Your task to perform on an android device: change timer sound Image 0: 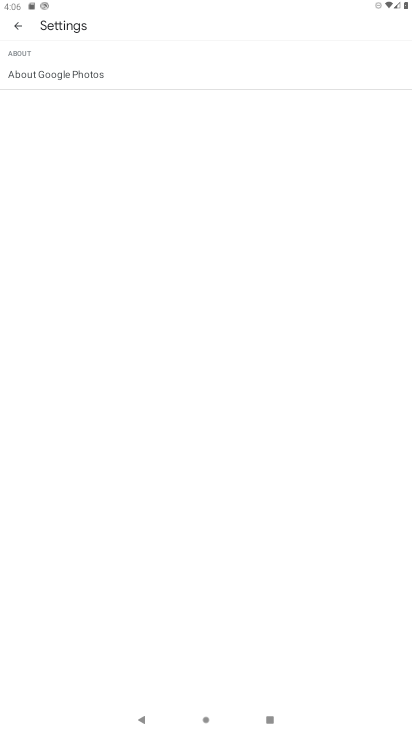
Step 0: press home button
Your task to perform on an android device: change timer sound Image 1: 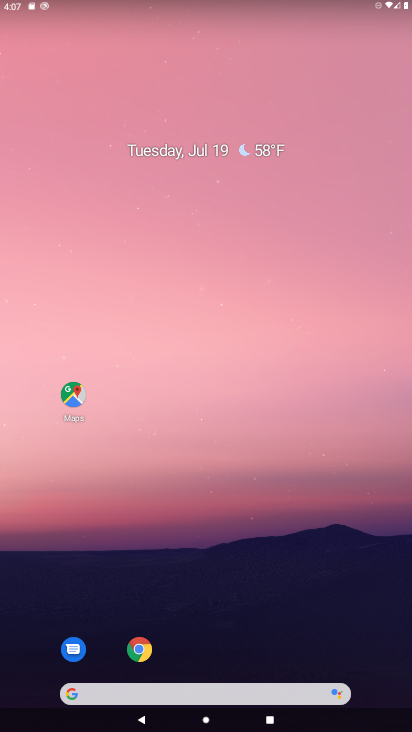
Step 1: drag from (229, 710) to (198, 131)
Your task to perform on an android device: change timer sound Image 2: 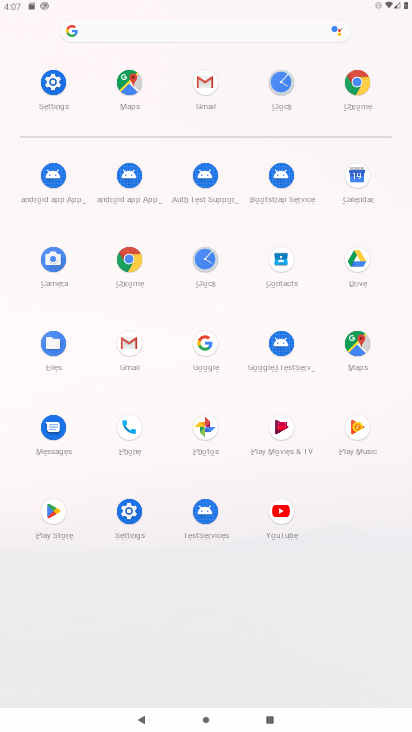
Step 2: click (207, 262)
Your task to perform on an android device: change timer sound Image 3: 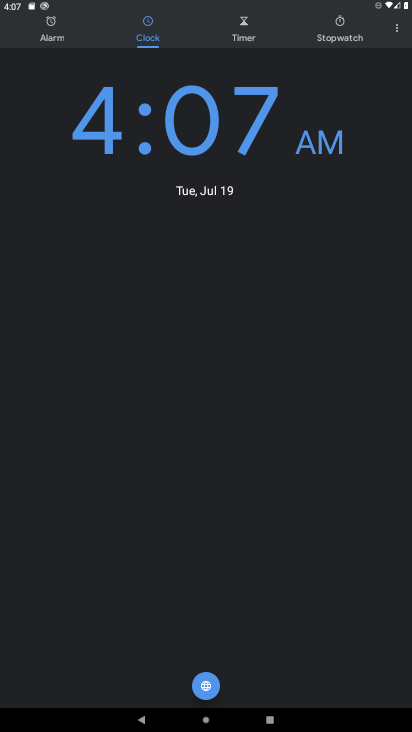
Step 3: click (396, 30)
Your task to perform on an android device: change timer sound Image 4: 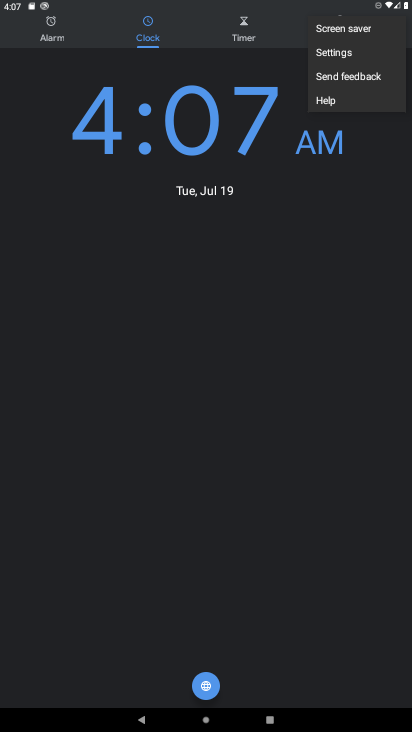
Step 4: click (330, 58)
Your task to perform on an android device: change timer sound Image 5: 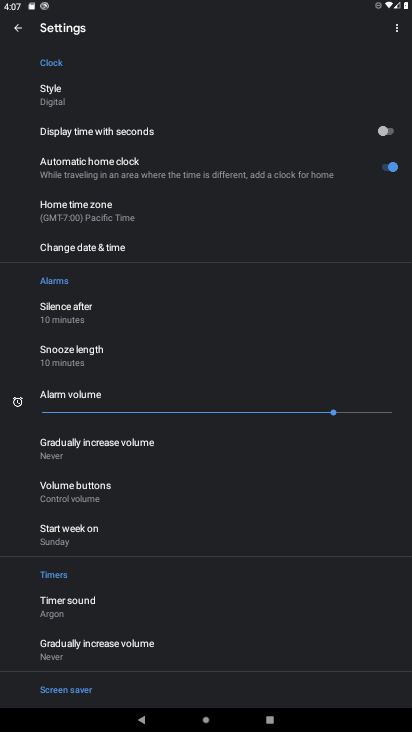
Step 5: click (76, 605)
Your task to perform on an android device: change timer sound Image 6: 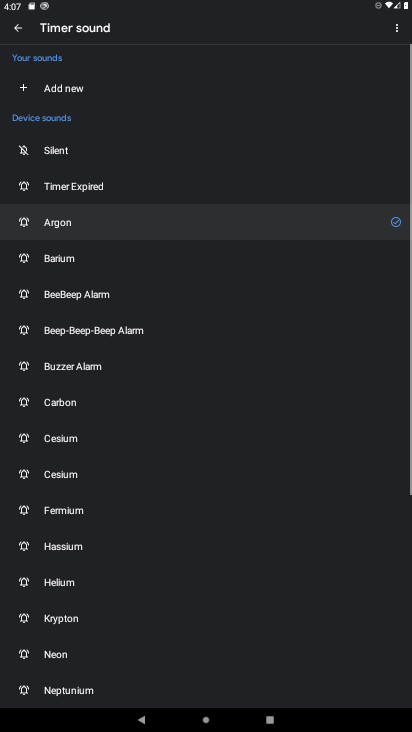
Step 6: click (70, 330)
Your task to perform on an android device: change timer sound Image 7: 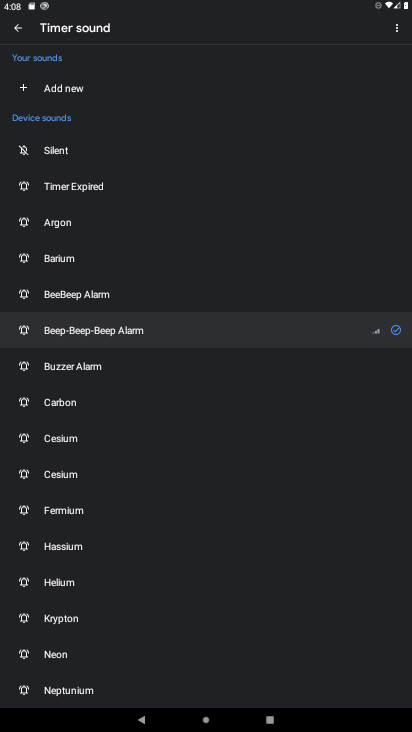
Step 7: task complete